Your task to perform on an android device: change notification settings in the gmail app Image 0: 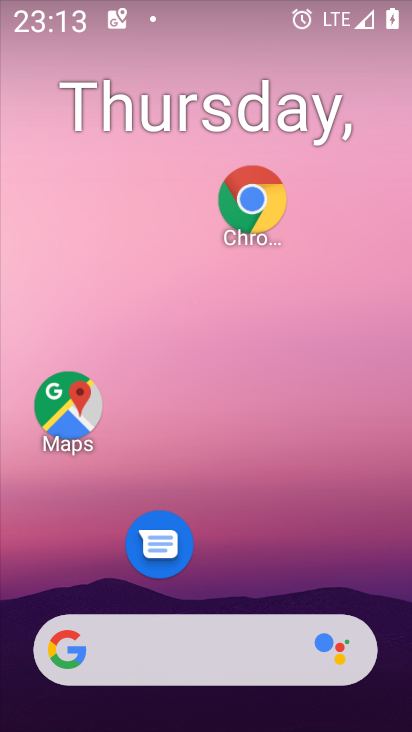
Step 0: drag from (268, 565) to (297, 49)
Your task to perform on an android device: change notification settings in the gmail app Image 1: 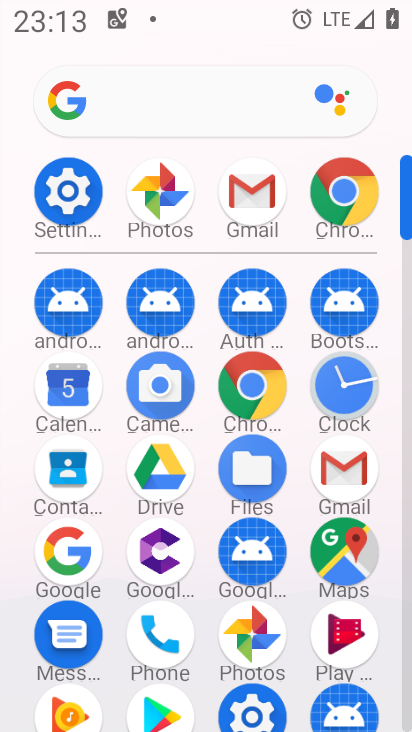
Step 1: click (245, 234)
Your task to perform on an android device: change notification settings in the gmail app Image 2: 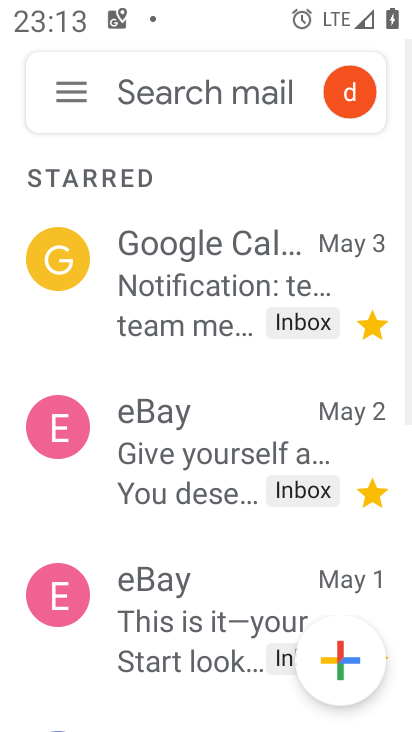
Step 2: click (66, 100)
Your task to perform on an android device: change notification settings in the gmail app Image 3: 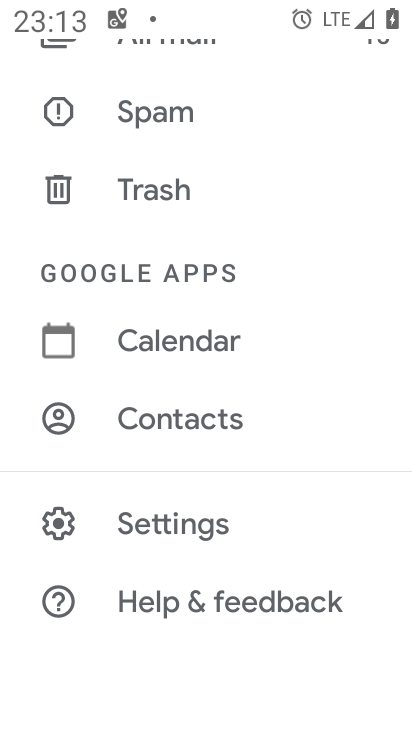
Step 3: click (87, 519)
Your task to perform on an android device: change notification settings in the gmail app Image 4: 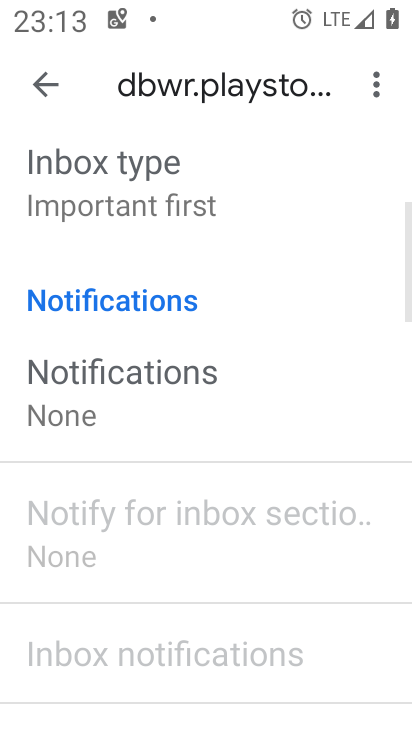
Step 4: click (143, 363)
Your task to perform on an android device: change notification settings in the gmail app Image 5: 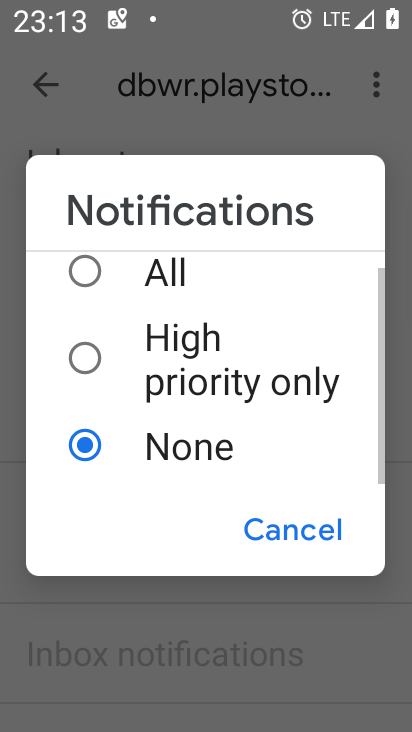
Step 5: click (181, 313)
Your task to perform on an android device: change notification settings in the gmail app Image 6: 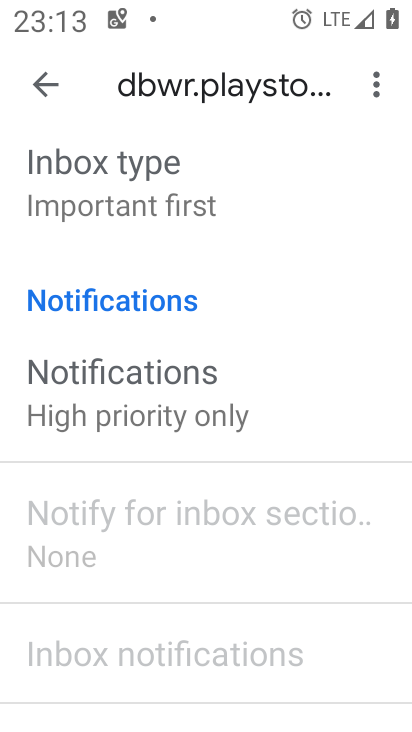
Step 6: task complete